Your task to perform on an android device: Toggle the flashlight Image 0: 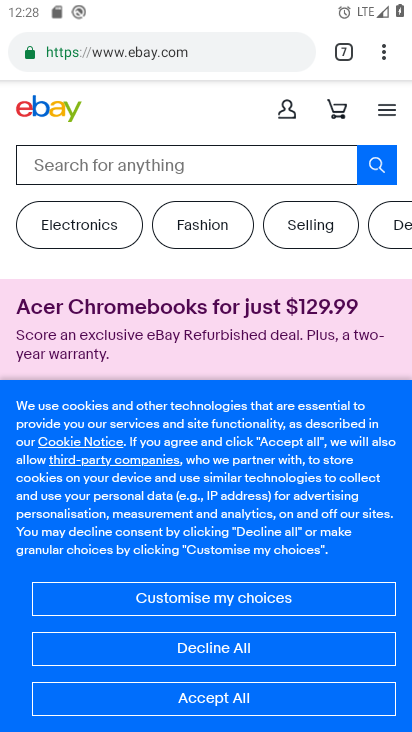
Step 0: press home button
Your task to perform on an android device: Toggle the flashlight Image 1: 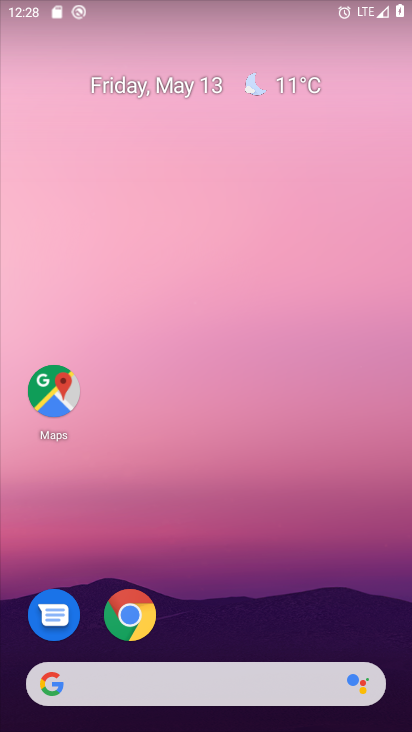
Step 1: drag from (190, 471) to (223, 19)
Your task to perform on an android device: Toggle the flashlight Image 2: 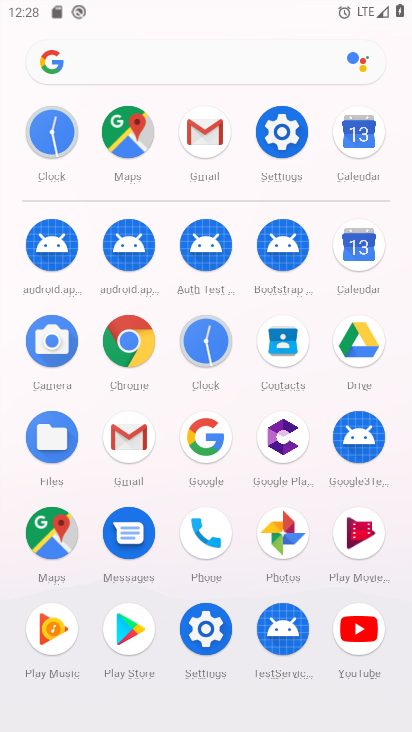
Step 2: click (272, 115)
Your task to perform on an android device: Toggle the flashlight Image 3: 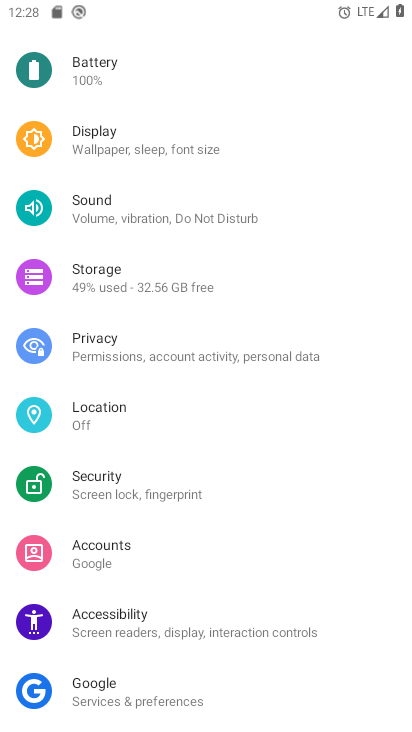
Step 3: drag from (264, 217) to (263, 611)
Your task to perform on an android device: Toggle the flashlight Image 4: 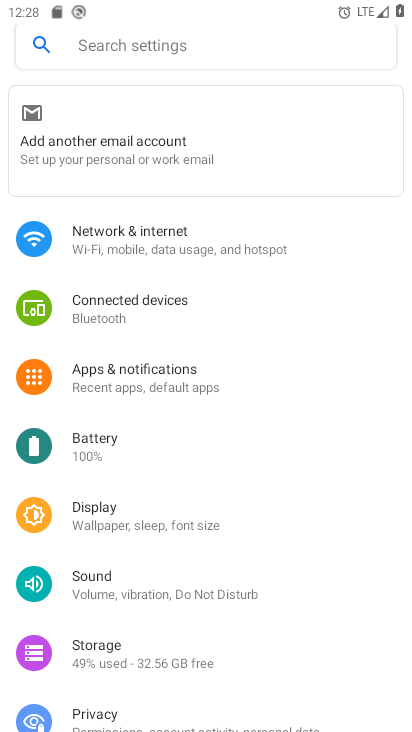
Step 4: drag from (246, 258) to (257, 529)
Your task to perform on an android device: Toggle the flashlight Image 5: 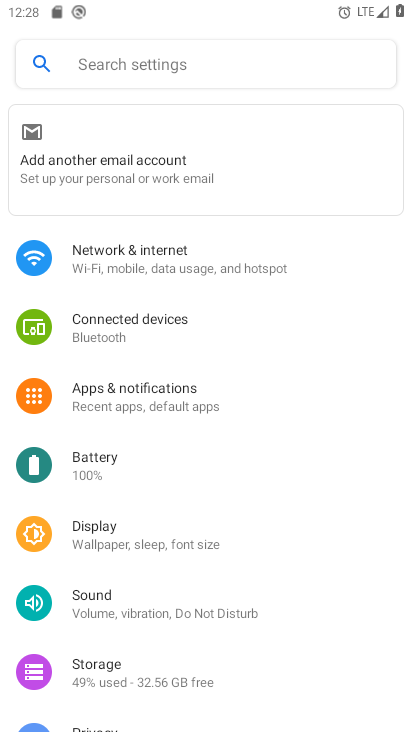
Step 5: click (252, 54)
Your task to perform on an android device: Toggle the flashlight Image 6: 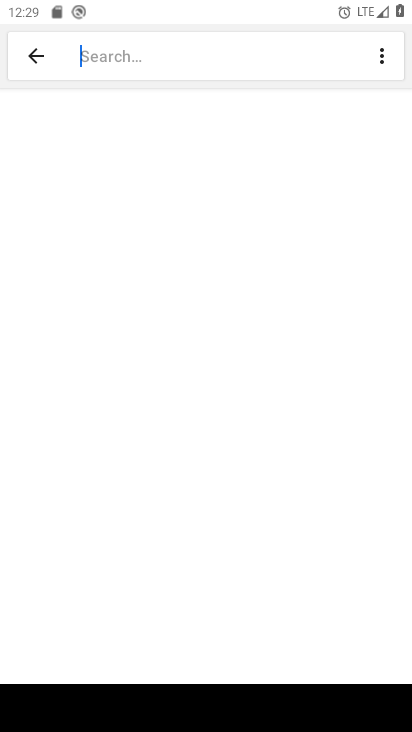
Step 6: type "Flashlight"
Your task to perform on an android device: Toggle the flashlight Image 7: 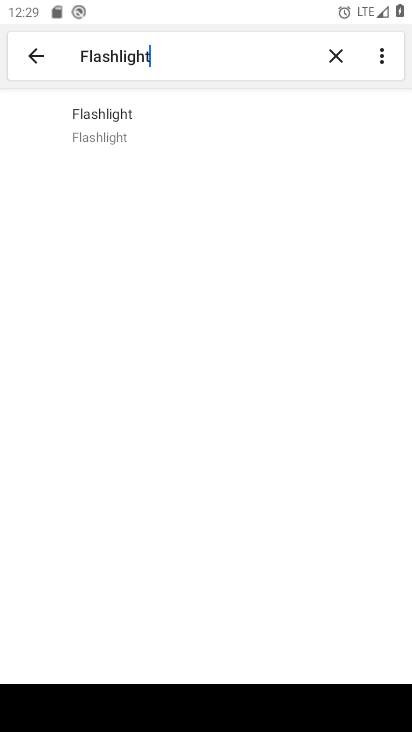
Step 7: click (118, 128)
Your task to perform on an android device: Toggle the flashlight Image 8: 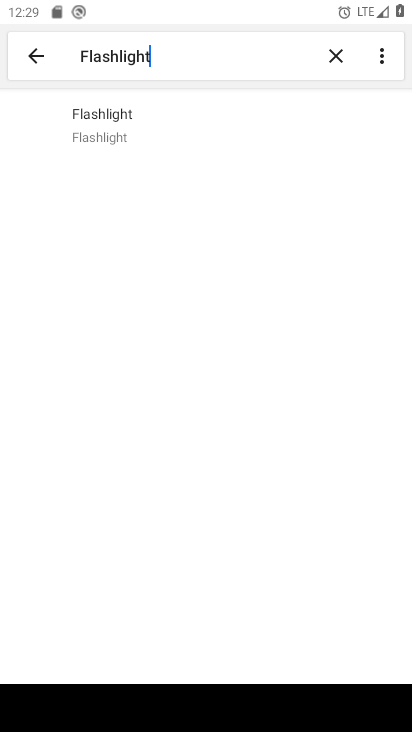
Step 8: click (118, 123)
Your task to perform on an android device: Toggle the flashlight Image 9: 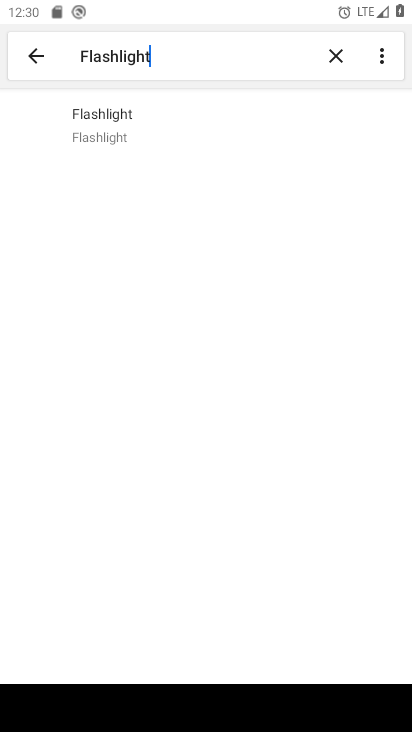
Step 9: click (89, 127)
Your task to perform on an android device: Toggle the flashlight Image 10: 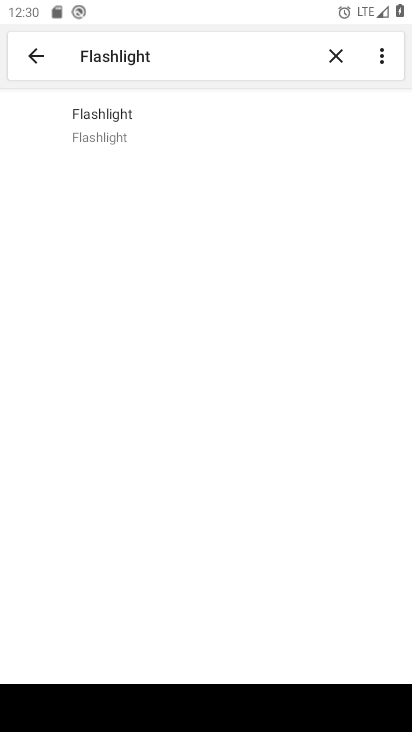
Step 10: click (103, 114)
Your task to perform on an android device: Toggle the flashlight Image 11: 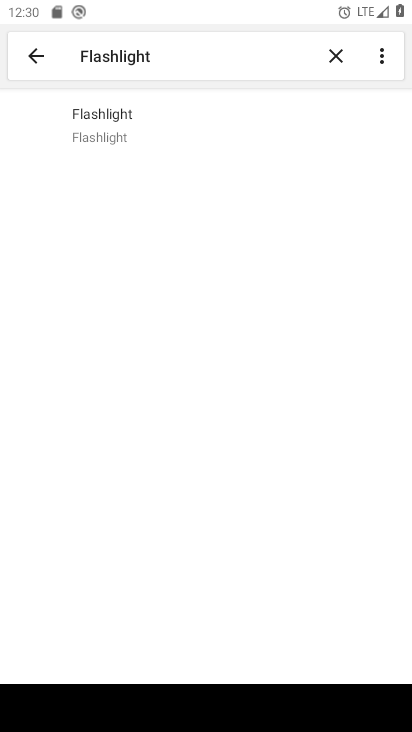
Step 11: task complete